Your task to perform on an android device: Open calendar and show me the fourth week of next month Image 0: 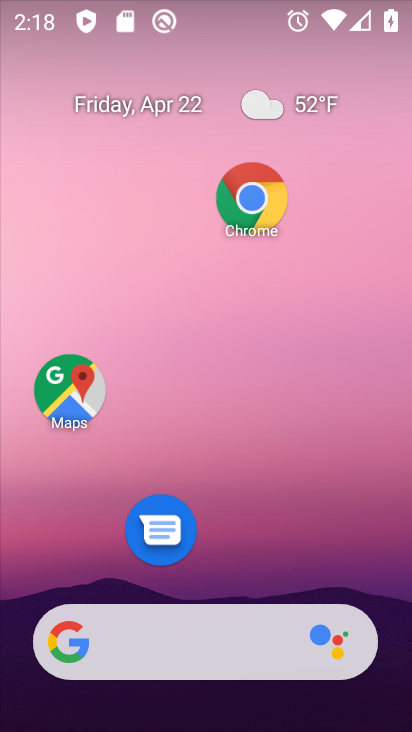
Step 0: drag from (212, 576) to (225, 39)
Your task to perform on an android device: Open calendar and show me the fourth week of next month Image 1: 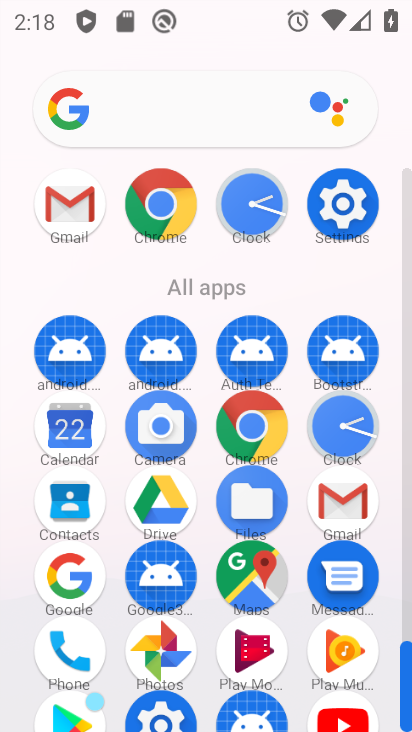
Step 1: click (64, 417)
Your task to perform on an android device: Open calendar and show me the fourth week of next month Image 2: 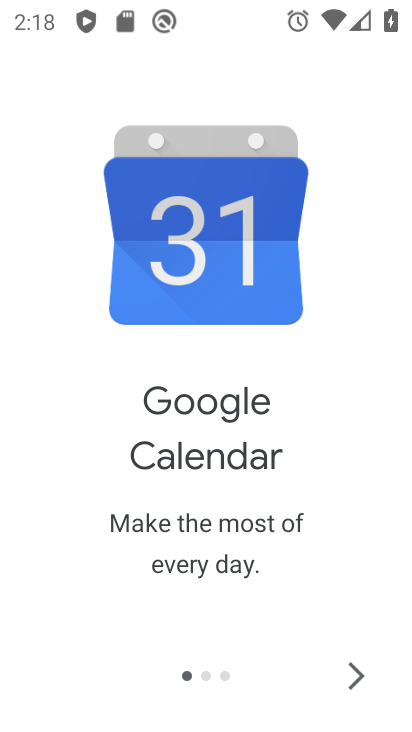
Step 2: click (348, 667)
Your task to perform on an android device: Open calendar and show me the fourth week of next month Image 3: 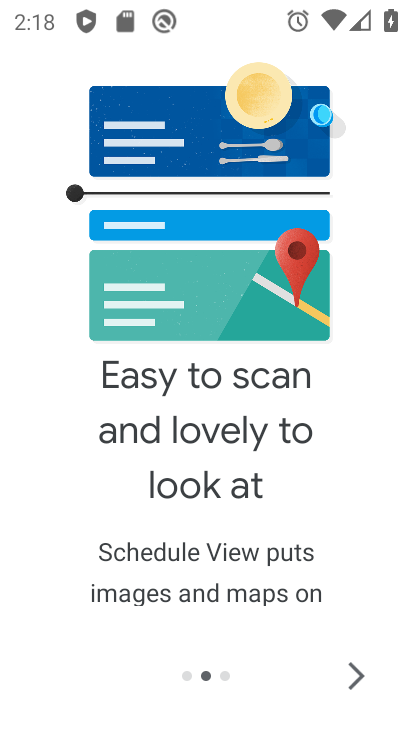
Step 3: click (348, 667)
Your task to perform on an android device: Open calendar and show me the fourth week of next month Image 4: 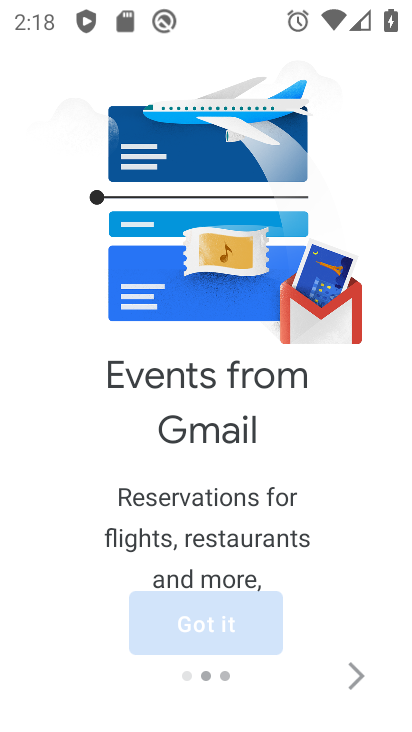
Step 4: click (348, 667)
Your task to perform on an android device: Open calendar and show me the fourth week of next month Image 5: 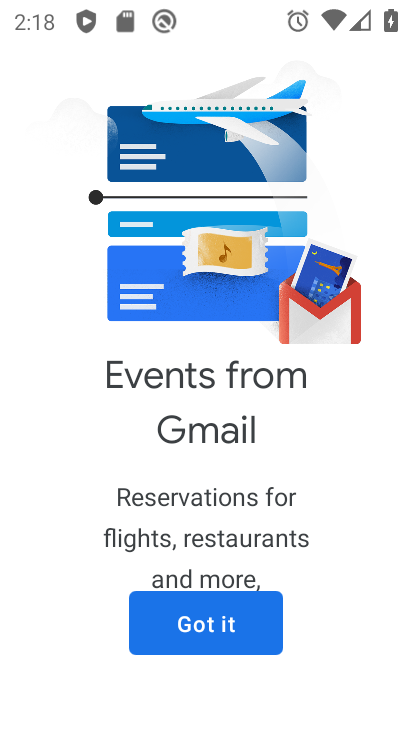
Step 5: click (244, 638)
Your task to perform on an android device: Open calendar and show me the fourth week of next month Image 6: 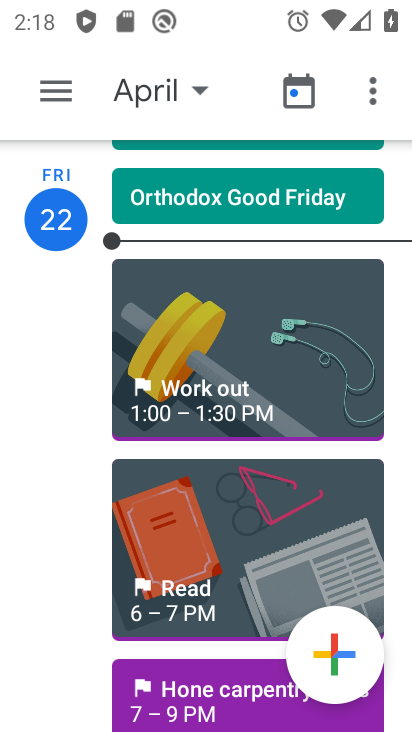
Step 6: click (46, 89)
Your task to perform on an android device: Open calendar and show me the fourth week of next month Image 7: 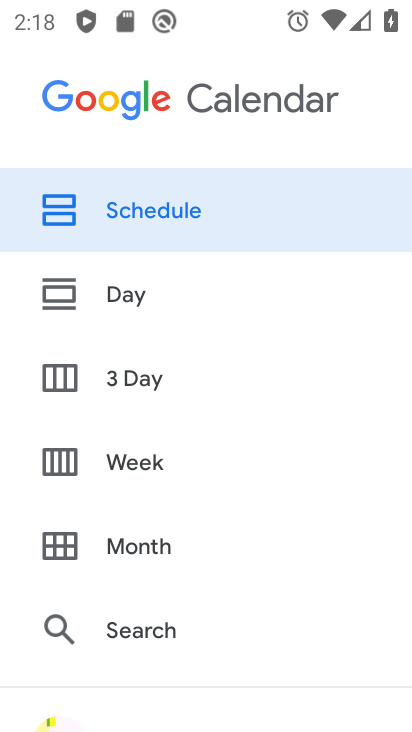
Step 7: click (86, 454)
Your task to perform on an android device: Open calendar and show me the fourth week of next month Image 8: 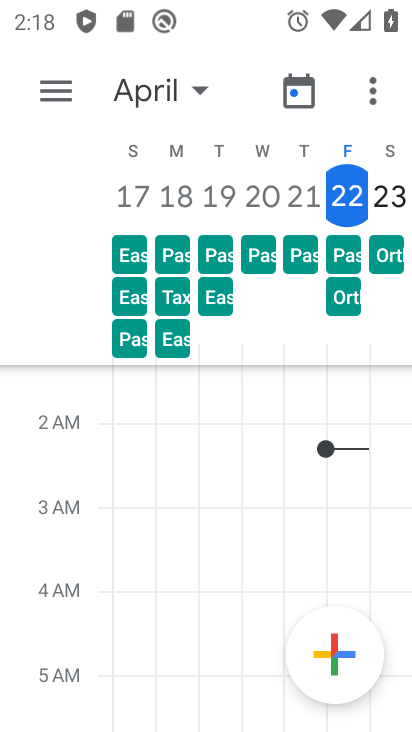
Step 8: drag from (395, 185) to (95, 171)
Your task to perform on an android device: Open calendar and show me the fourth week of next month Image 9: 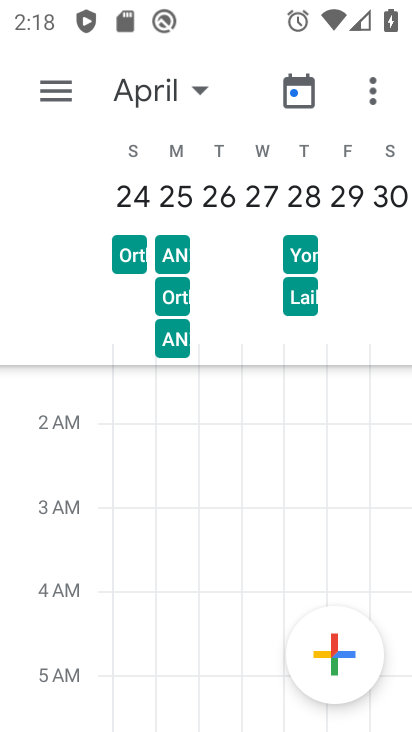
Step 9: drag from (393, 207) to (96, 191)
Your task to perform on an android device: Open calendar and show me the fourth week of next month Image 10: 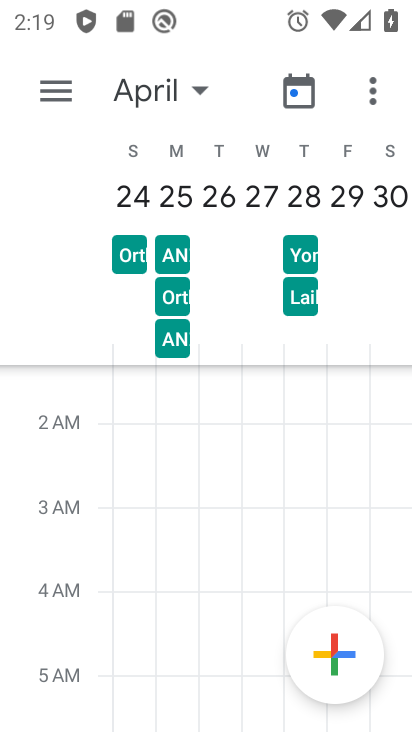
Step 10: drag from (391, 198) to (19, 189)
Your task to perform on an android device: Open calendar and show me the fourth week of next month Image 11: 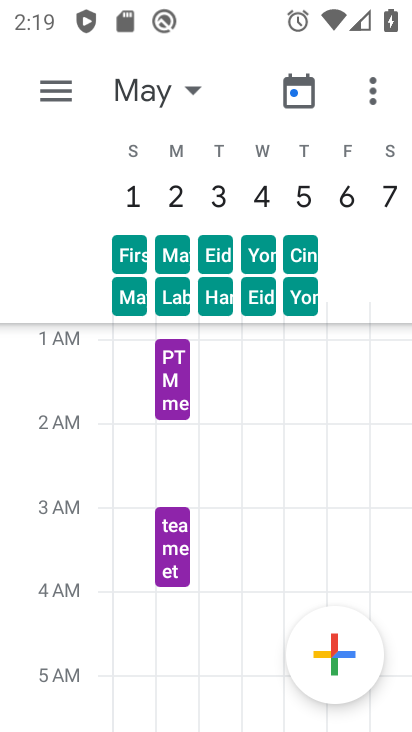
Step 11: drag from (391, 179) to (123, 183)
Your task to perform on an android device: Open calendar and show me the fourth week of next month Image 12: 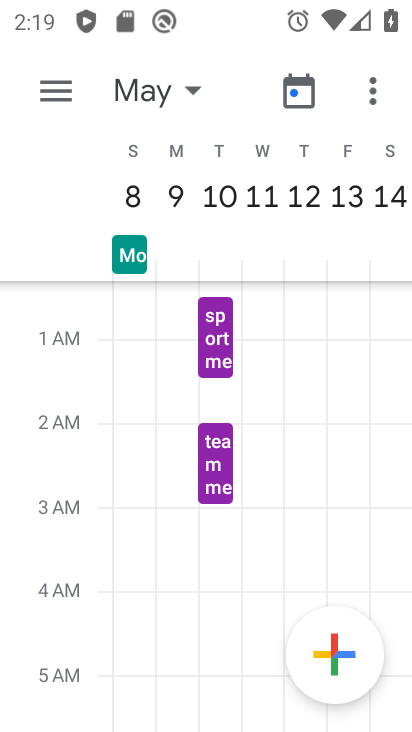
Step 12: drag from (399, 197) to (7, 197)
Your task to perform on an android device: Open calendar and show me the fourth week of next month Image 13: 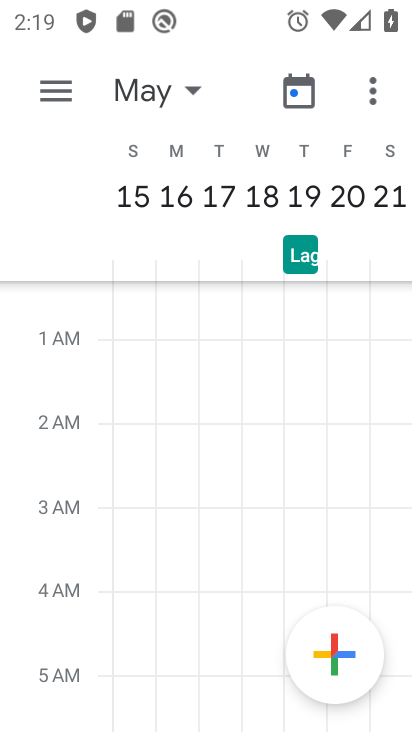
Step 13: drag from (394, 195) to (68, 202)
Your task to perform on an android device: Open calendar and show me the fourth week of next month Image 14: 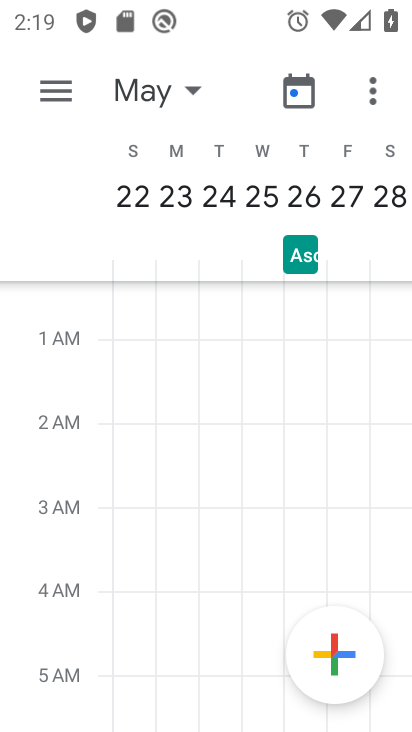
Step 14: click (141, 203)
Your task to perform on an android device: Open calendar and show me the fourth week of next month Image 15: 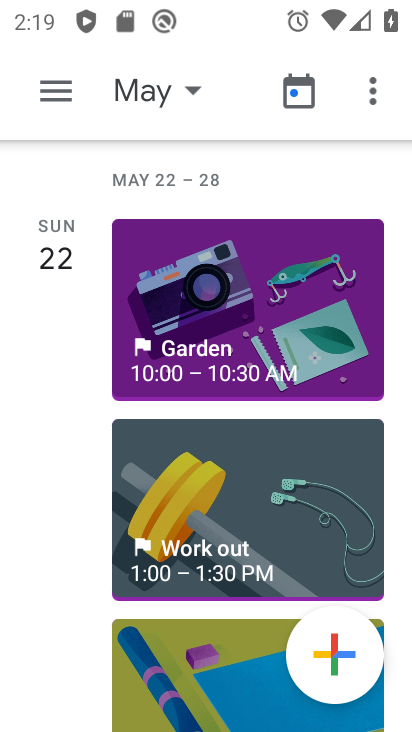
Step 15: task complete